Your task to perform on an android device: toggle notifications settings in the gmail app Image 0: 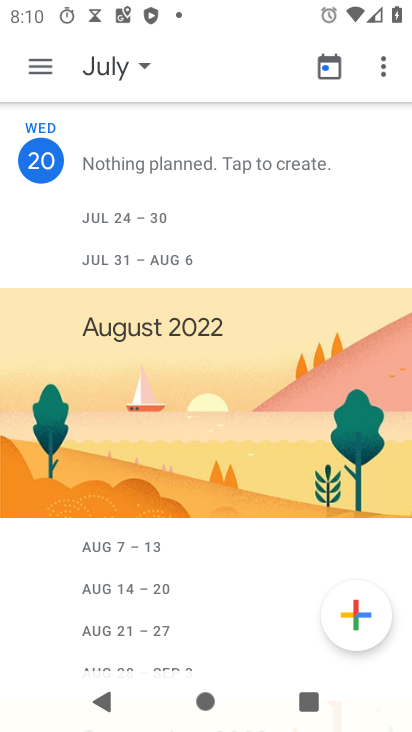
Step 0: press home button
Your task to perform on an android device: toggle notifications settings in the gmail app Image 1: 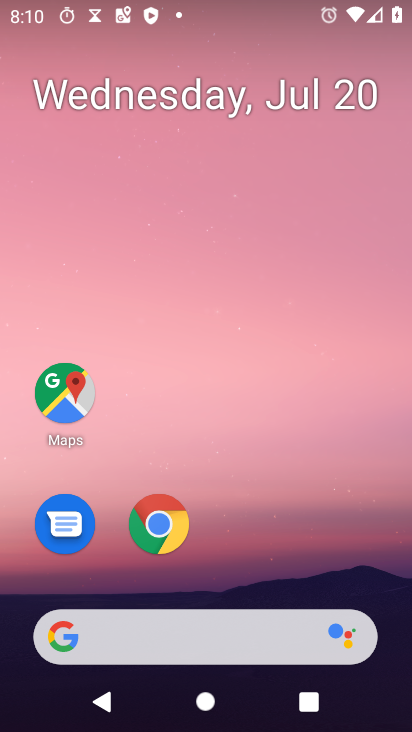
Step 1: drag from (250, 589) to (291, 262)
Your task to perform on an android device: toggle notifications settings in the gmail app Image 2: 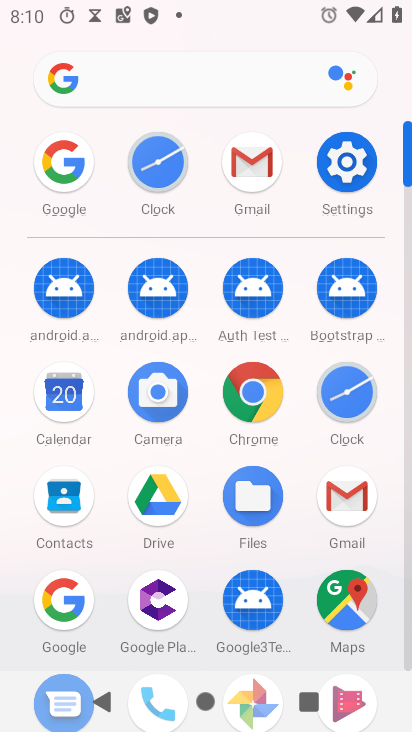
Step 2: click (263, 163)
Your task to perform on an android device: toggle notifications settings in the gmail app Image 3: 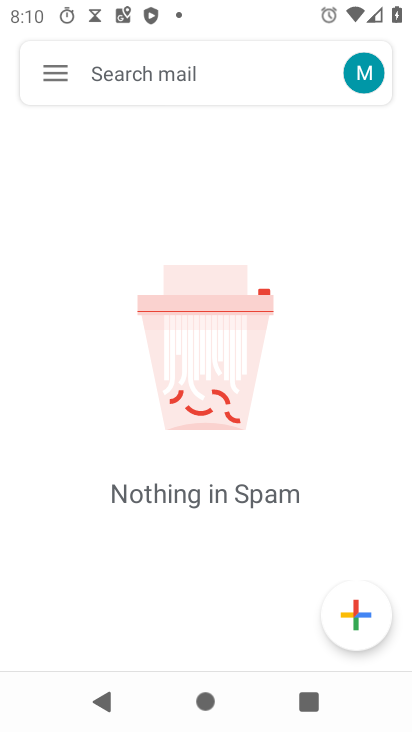
Step 3: click (63, 69)
Your task to perform on an android device: toggle notifications settings in the gmail app Image 4: 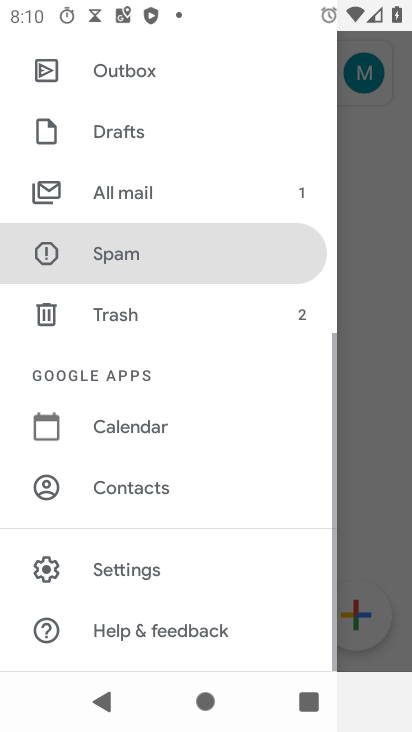
Step 4: click (139, 577)
Your task to perform on an android device: toggle notifications settings in the gmail app Image 5: 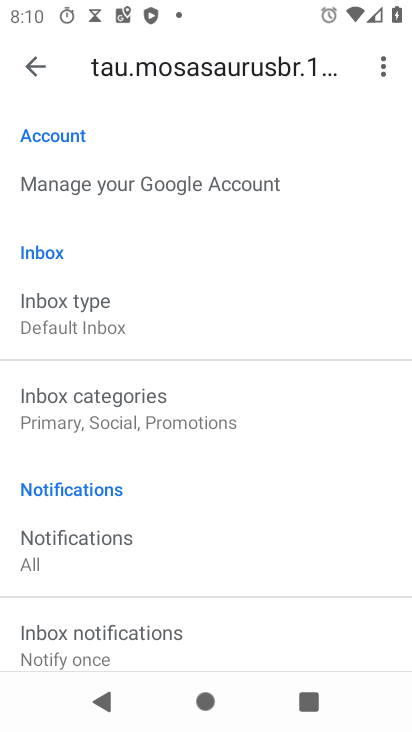
Step 5: click (79, 543)
Your task to perform on an android device: toggle notifications settings in the gmail app Image 6: 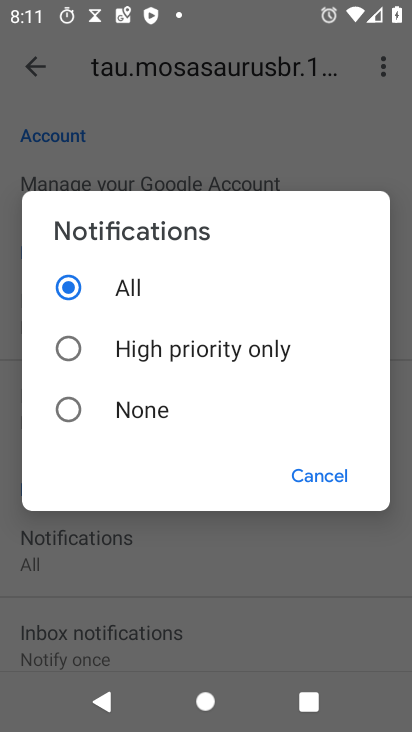
Step 6: click (61, 407)
Your task to perform on an android device: toggle notifications settings in the gmail app Image 7: 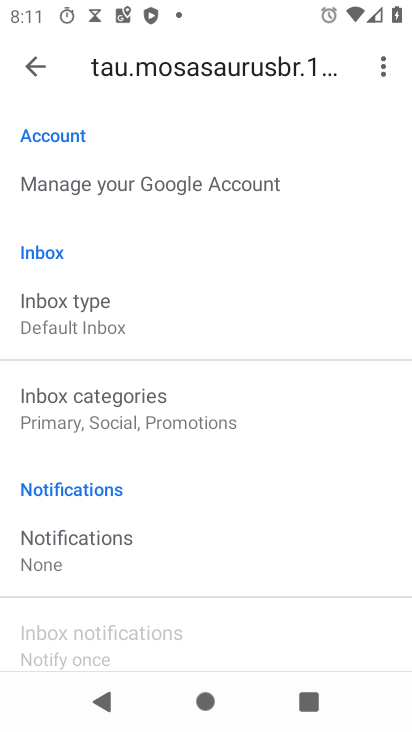
Step 7: task complete